Your task to perform on an android device: Show me productivity apps on the Play Store Image 0: 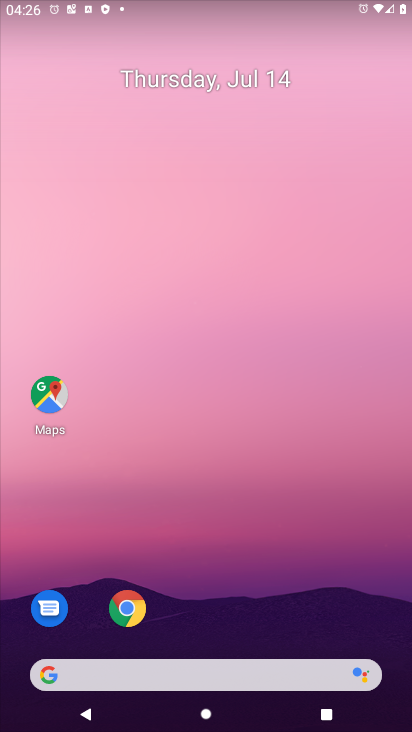
Step 0: drag from (379, 618) to (372, 168)
Your task to perform on an android device: Show me productivity apps on the Play Store Image 1: 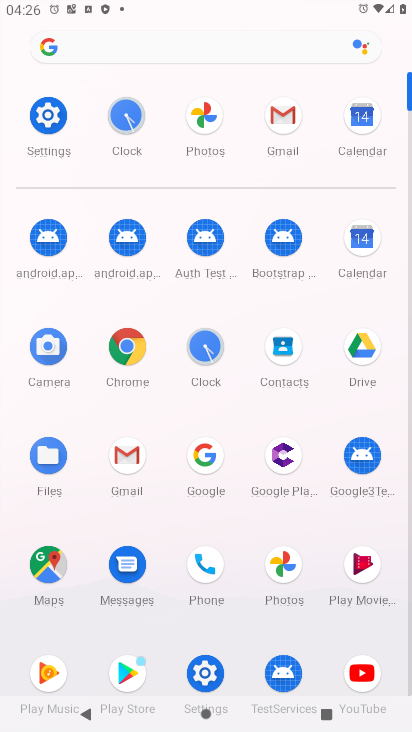
Step 1: click (129, 674)
Your task to perform on an android device: Show me productivity apps on the Play Store Image 2: 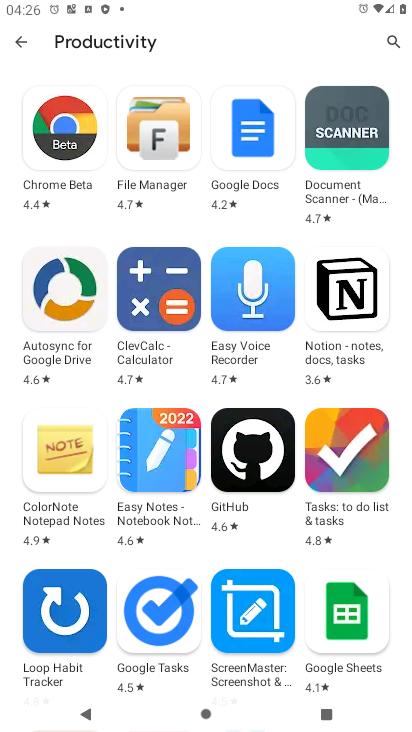
Step 2: task complete